Your task to perform on an android device: turn on the 12-hour format for clock Image 0: 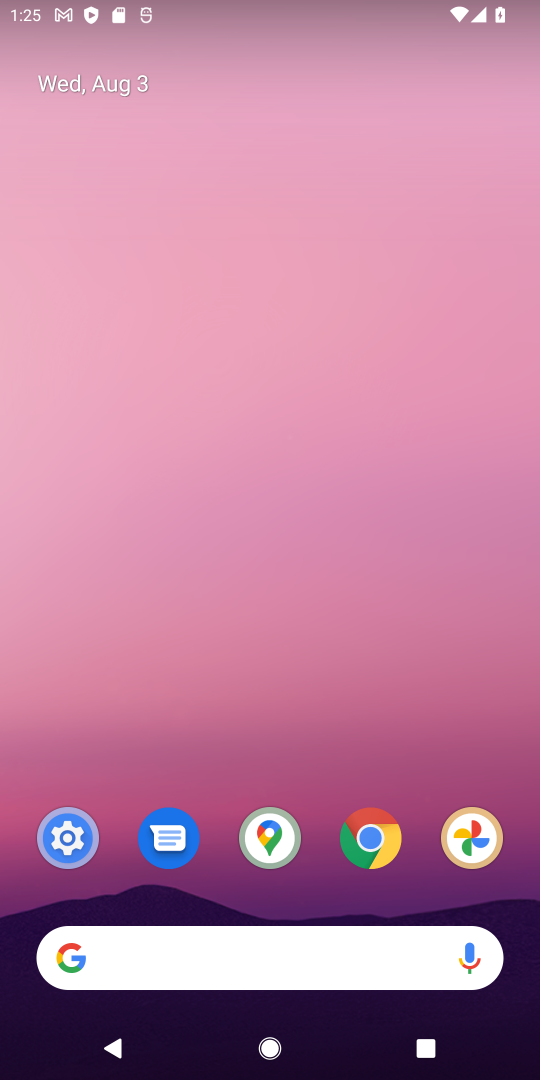
Step 0: drag from (126, 875) to (228, 53)
Your task to perform on an android device: turn on the 12-hour format for clock Image 1: 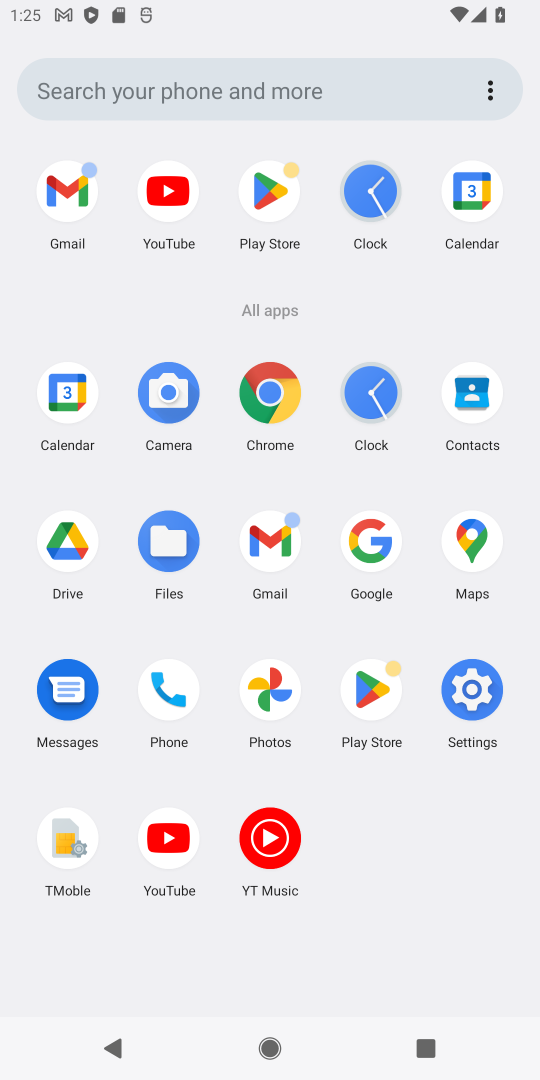
Step 1: click (377, 388)
Your task to perform on an android device: turn on the 12-hour format for clock Image 2: 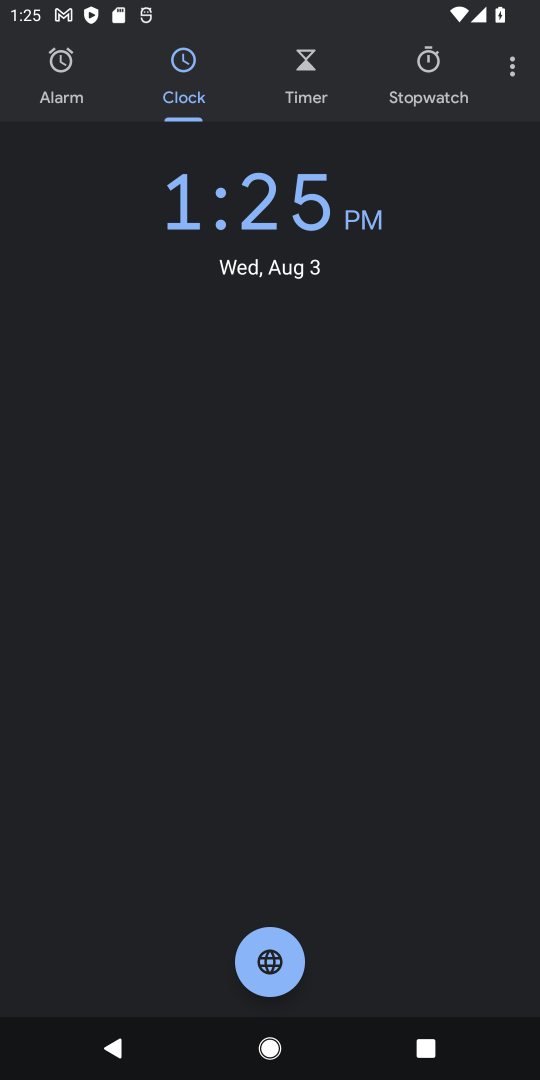
Step 2: click (516, 62)
Your task to perform on an android device: turn on the 12-hour format for clock Image 3: 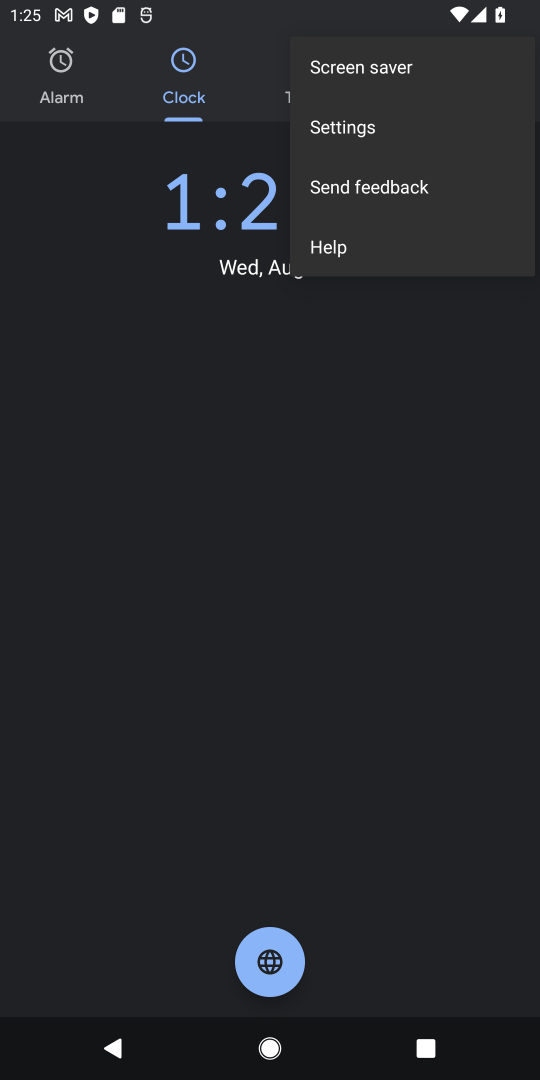
Step 3: click (367, 133)
Your task to perform on an android device: turn on the 12-hour format for clock Image 4: 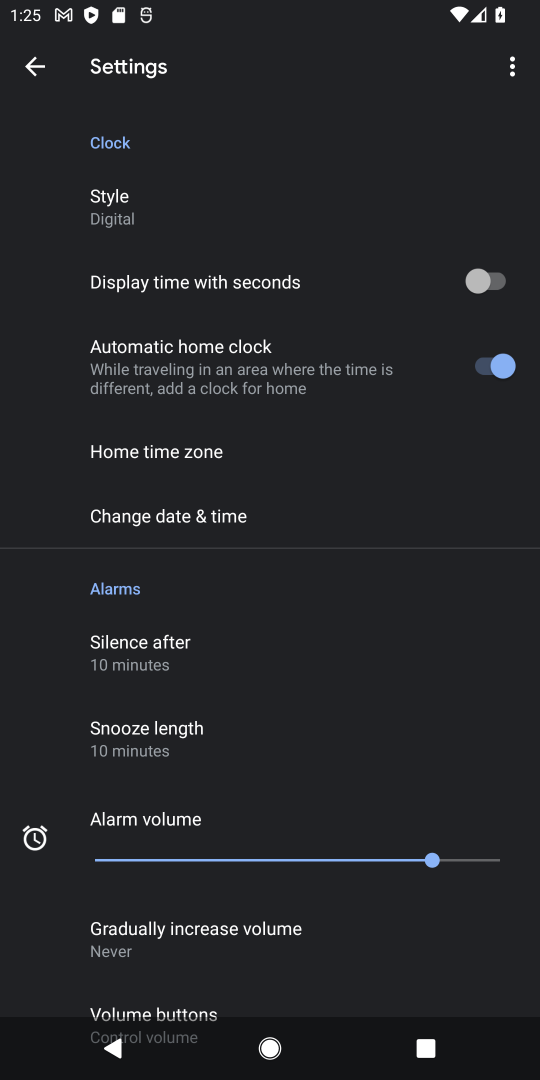
Step 4: click (158, 528)
Your task to perform on an android device: turn on the 12-hour format for clock Image 5: 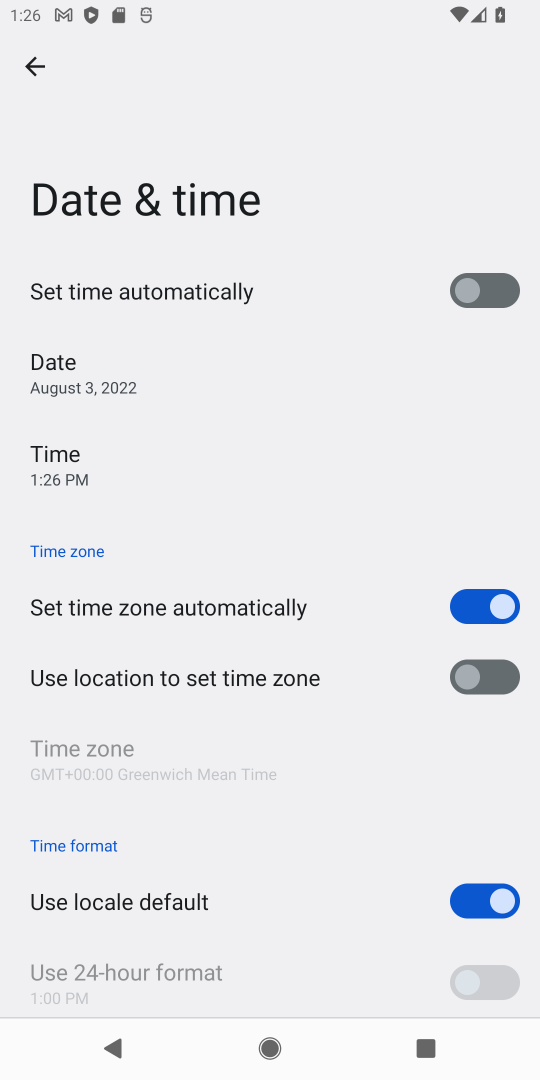
Step 5: task complete